Your task to perform on an android device: change timer sound Image 0: 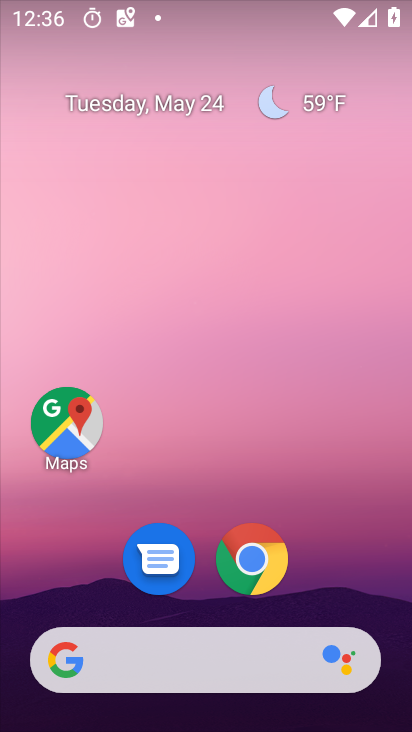
Step 0: drag from (399, 705) to (310, 258)
Your task to perform on an android device: change timer sound Image 1: 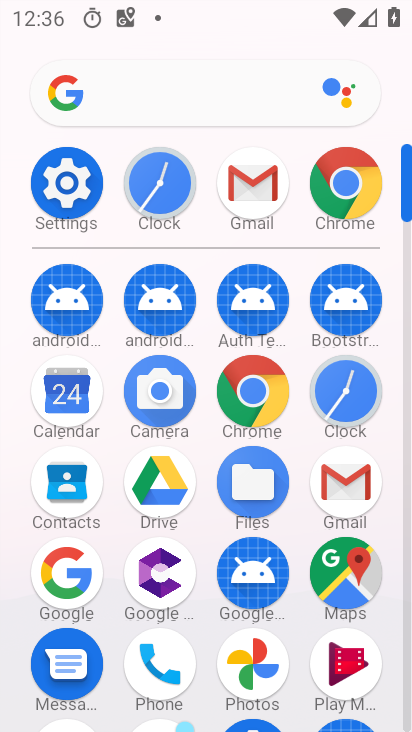
Step 1: click (360, 396)
Your task to perform on an android device: change timer sound Image 2: 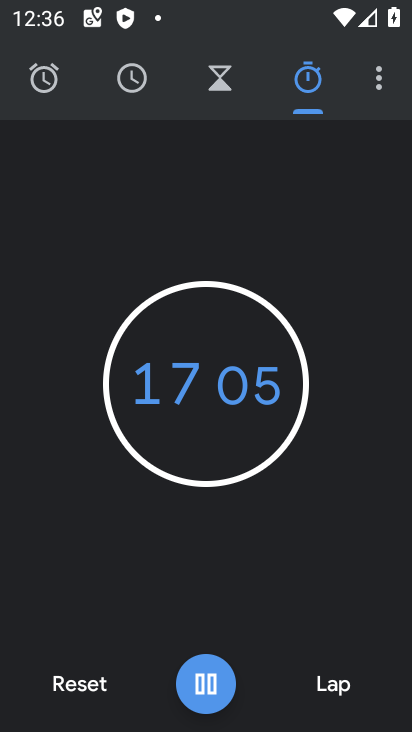
Step 2: click (378, 76)
Your task to perform on an android device: change timer sound Image 3: 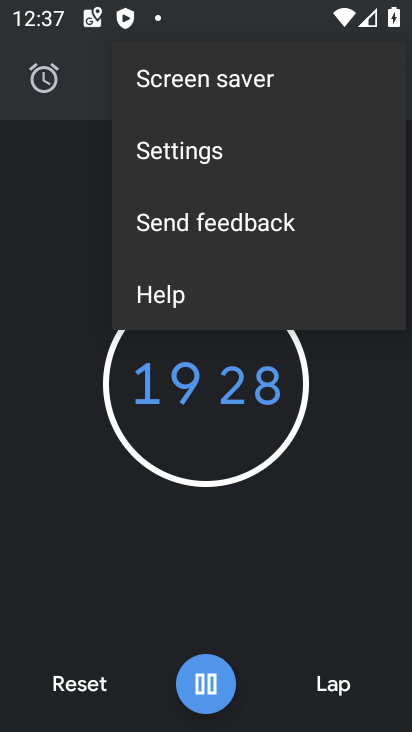
Step 3: click (207, 151)
Your task to perform on an android device: change timer sound Image 4: 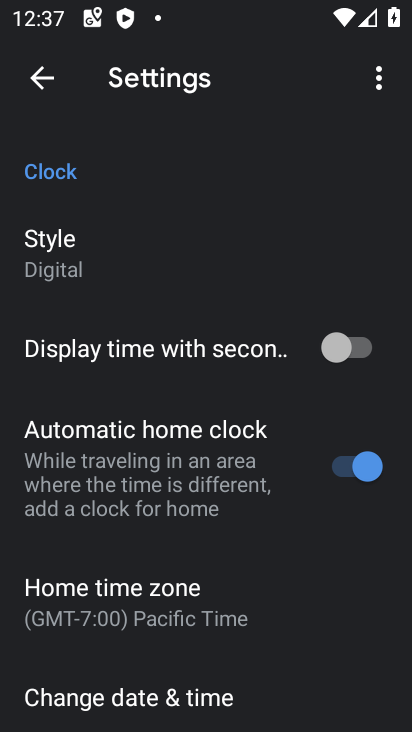
Step 4: drag from (275, 689) to (227, 461)
Your task to perform on an android device: change timer sound Image 5: 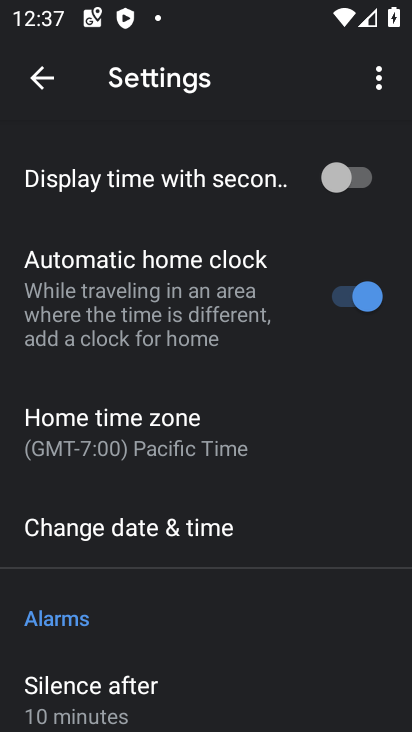
Step 5: drag from (240, 676) to (240, 328)
Your task to perform on an android device: change timer sound Image 6: 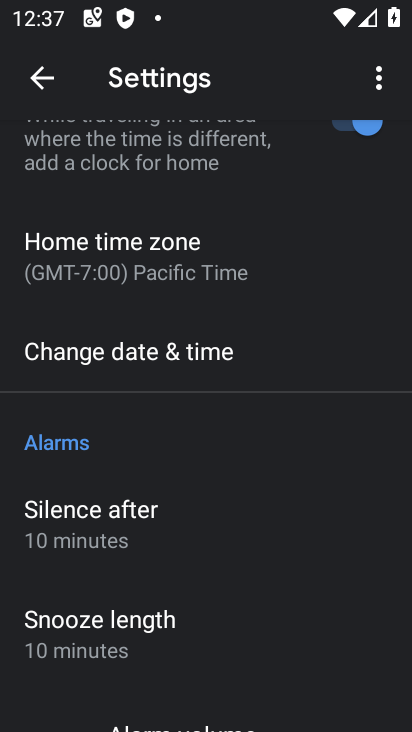
Step 6: drag from (239, 677) to (199, 388)
Your task to perform on an android device: change timer sound Image 7: 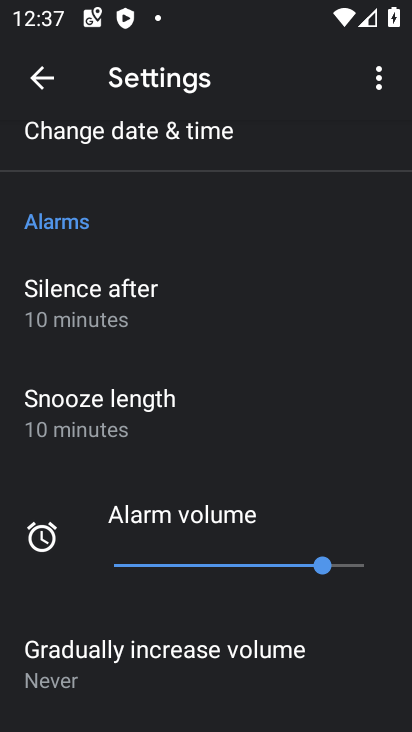
Step 7: drag from (313, 711) to (235, 343)
Your task to perform on an android device: change timer sound Image 8: 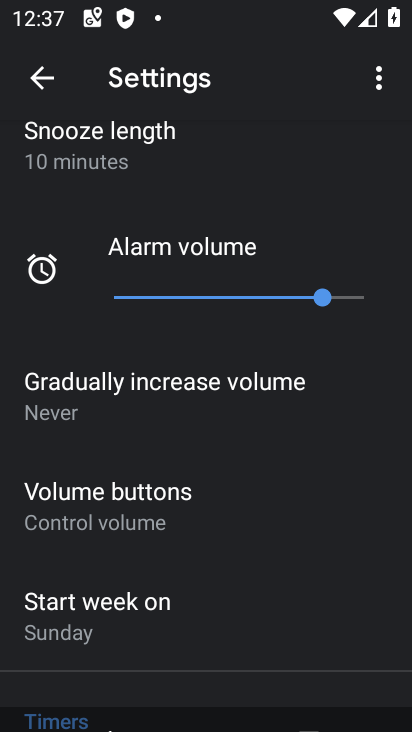
Step 8: drag from (286, 619) to (265, 378)
Your task to perform on an android device: change timer sound Image 9: 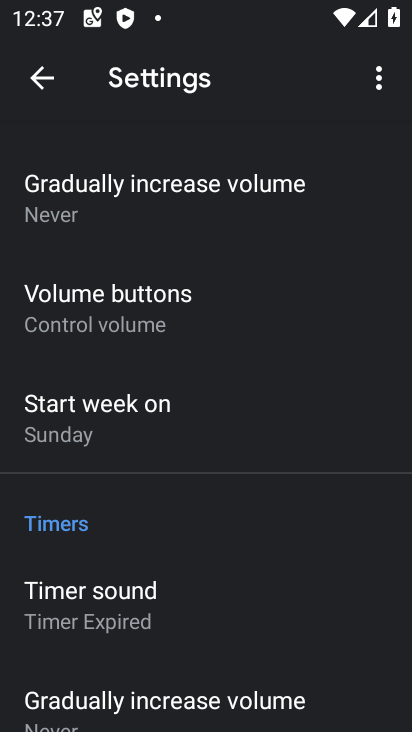
Step 9: click (84, 615)
Your task to perform on an android device: change timer sound Image 10: 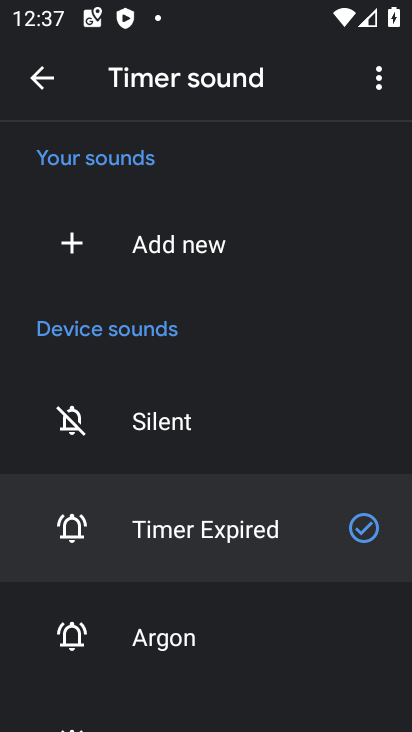
Step 10: click (71, 634)
Your task to perform on an android device: change timer sound Image 11: 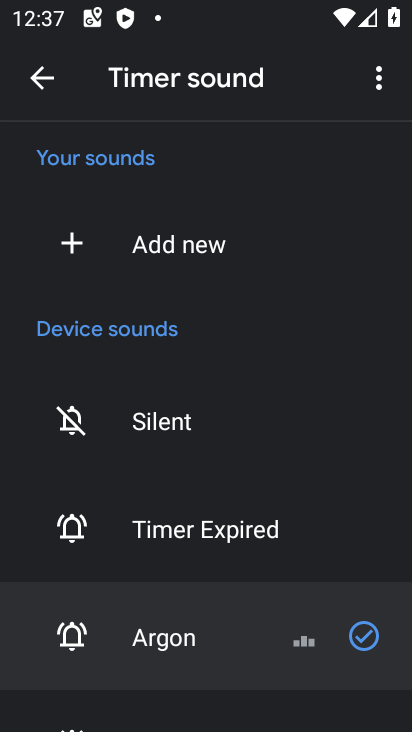
Step 11: task complete